Your task to perform on an android device: Is it going to rain tomorrow? Image 0: 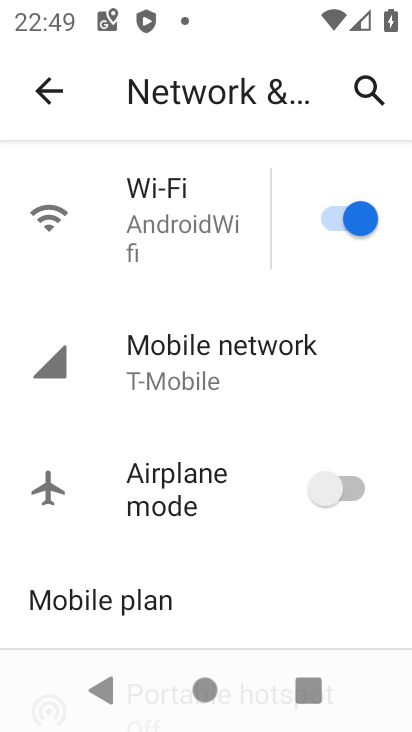
Step 0: press home button
Your task to perform on an android device: Is it going to rain tomorrow? Image 1: 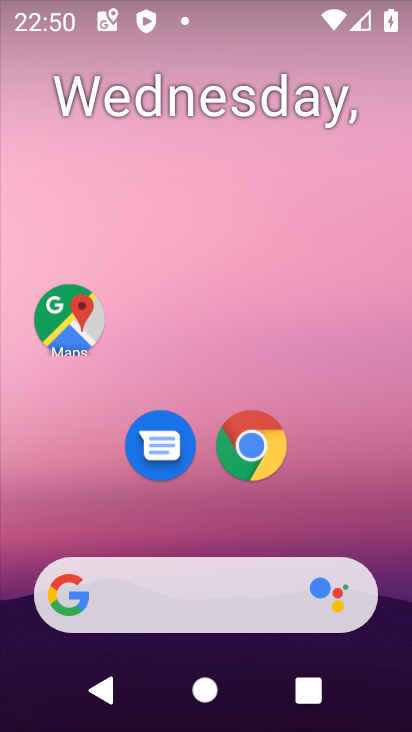
Step 1: click (249, 438)
Your task to perform on an android device: Is it going to rain tomorrow? Image 2: 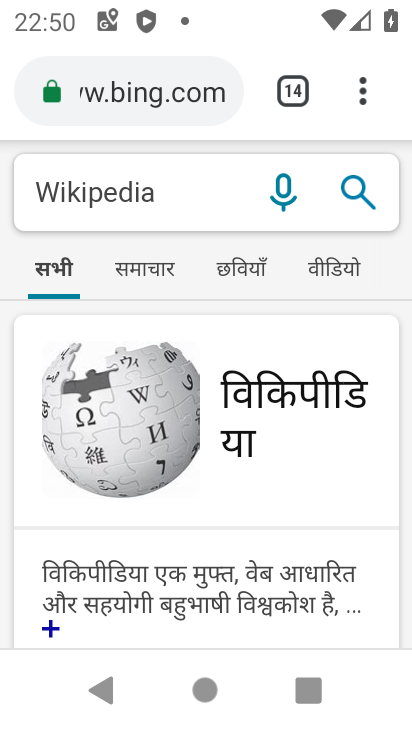
Step 2: click (359, 99)
Your task to perform on an android device: Is it going to rain tomorrow? Image 3: 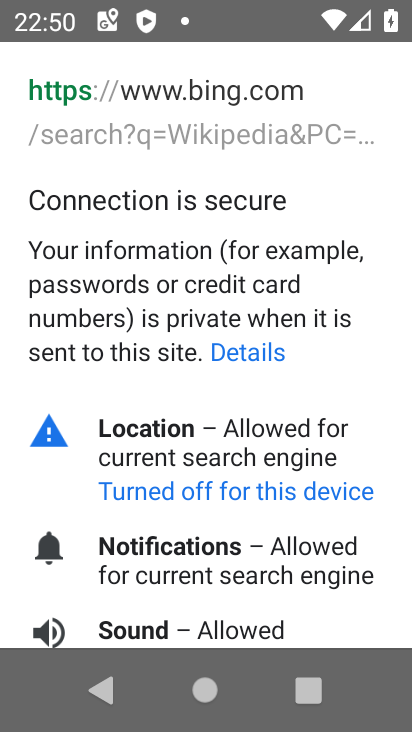
Step 3: press back button
Your task to perform on an android device: Is it going to rain tomorrow? Image 4: 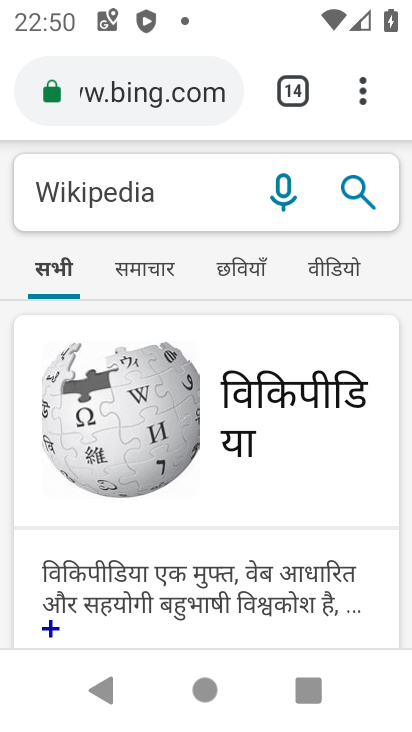
Step 4: click (369, 87)
Your task to perform on an android device: Is it going to rain tomorrow? Image 5: 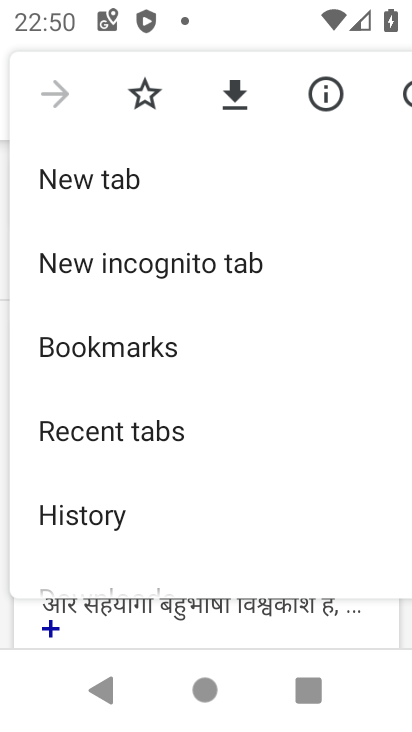
Step 5: click (132, 179)
Your task to perform on an android device: Is it going to rain tomorrow? Image 6: 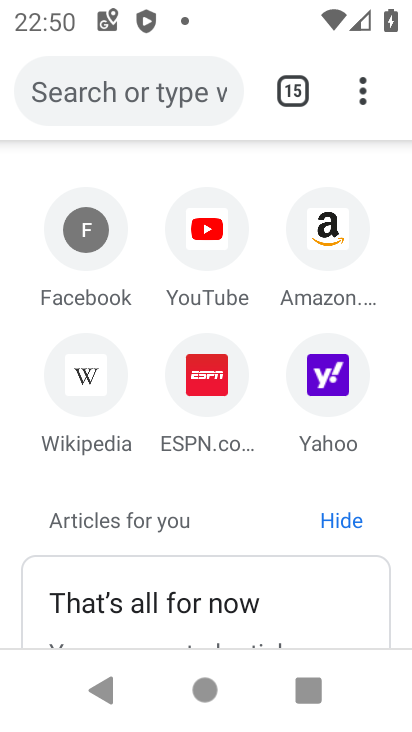
Step 6: click (88, 85)
Your task to perform on an android device: Is it going to rain tomorrow? Image 7: 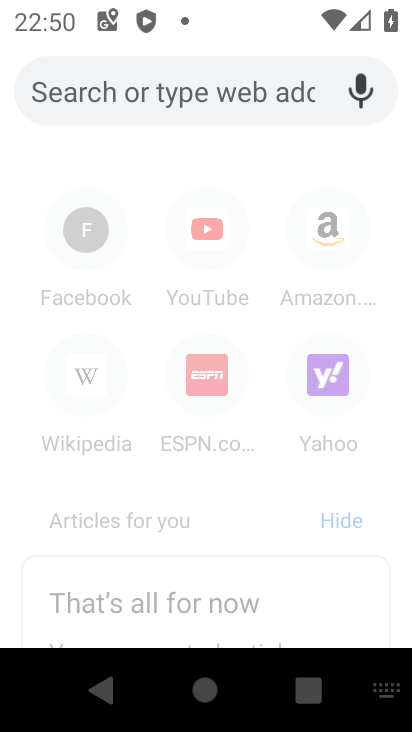
Step 7: type "Is it going to rain tomorrow?"
Your task to perform on an android device: Is it going to rain tomorrow? Image 8: 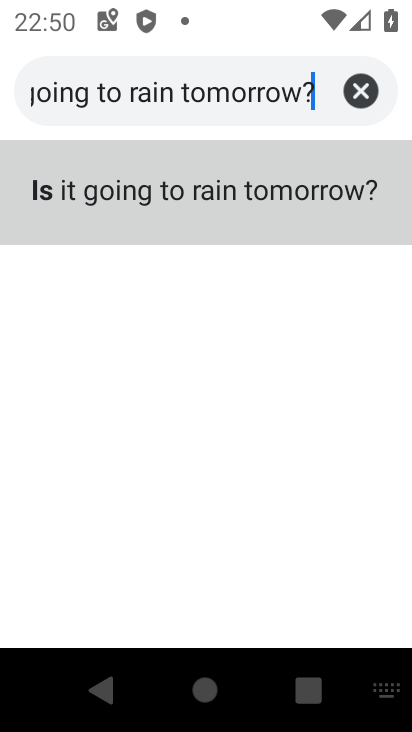
Step 8: click (302, 200)
Your task to perform on an android device: Is it going to rain tomorrow? Image 9: 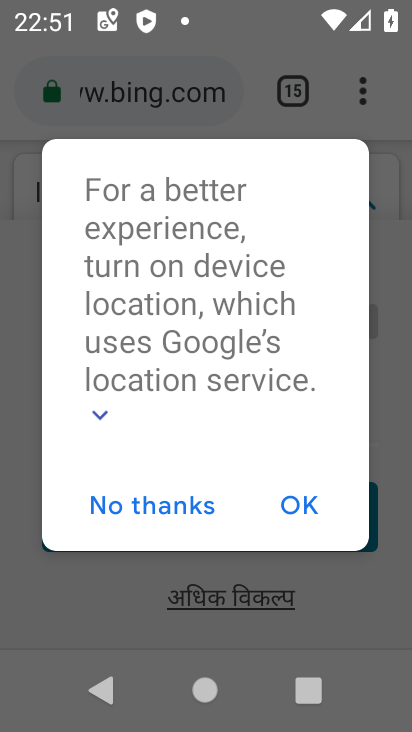
Step 9: click (322, 505)
Your task to perform on an android device: Is it going to rain tomorrow? Image 10: 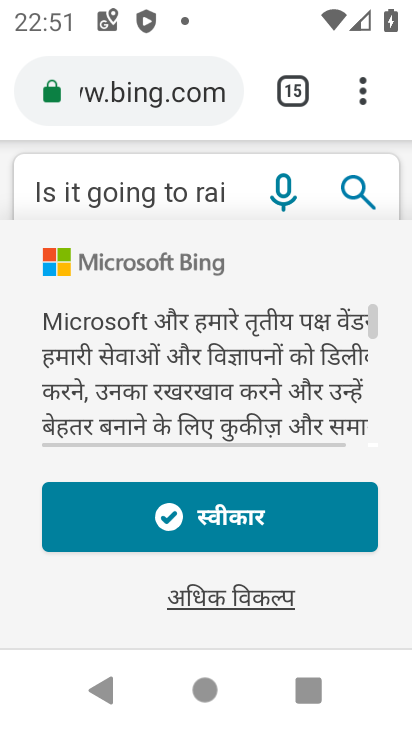
Step 10: task complete